Your task to perform on an android device: Toggle the flashlight Image 0: 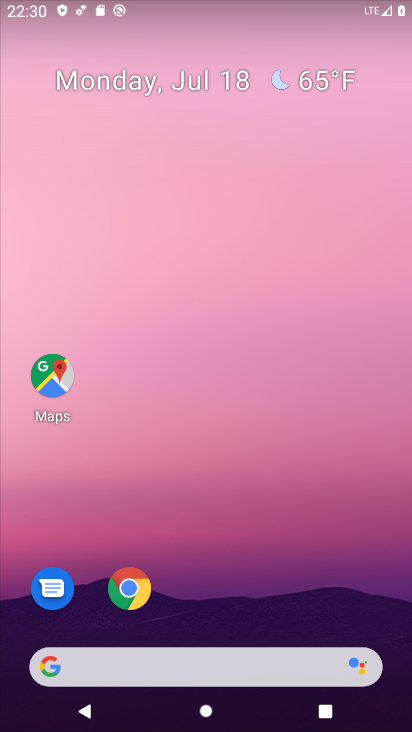
Step 0: press home button
Your task to perform on an android device: Toggle the flashlight Image 1: 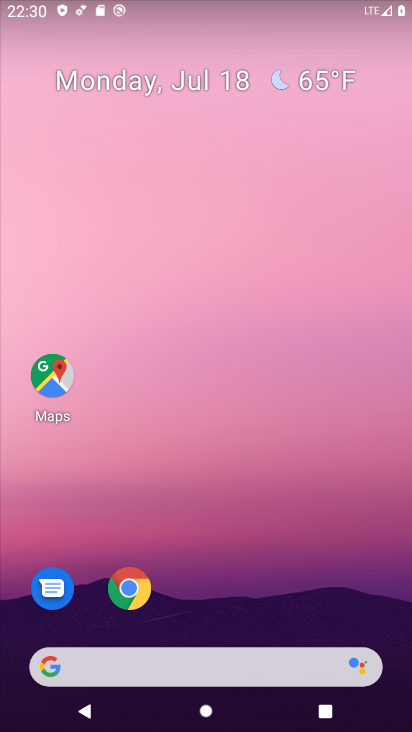
Step 1: task complete